Your task to perform on an android device: Go to location settings Image 0: 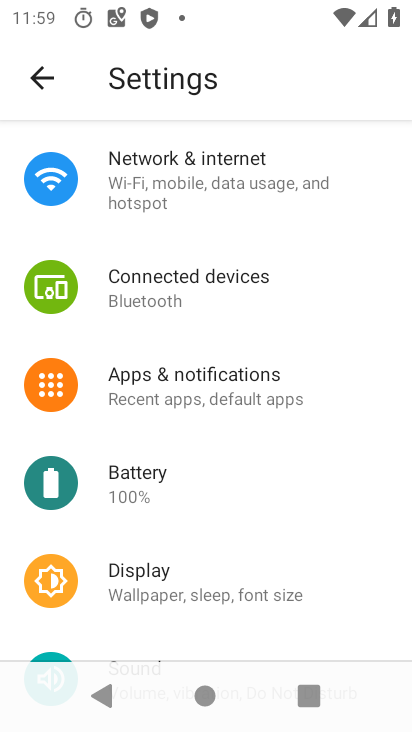
Step 0: press home button
Your task to perform on an android device: Go to location settings Image 1: 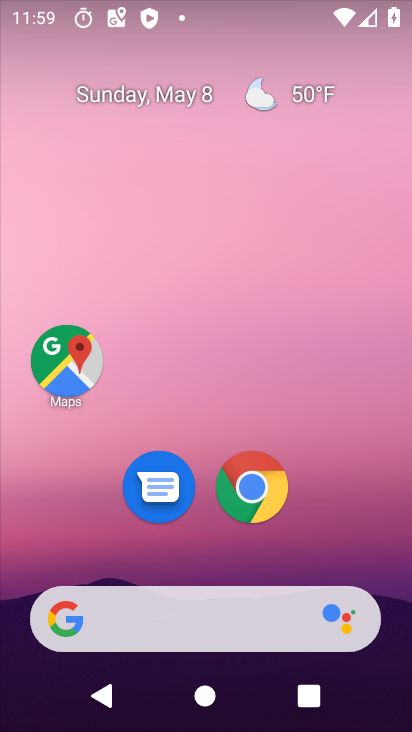
Step 1: drag from (200, 517) to (170, 158)
Your task to perform on an android device: Go to location settings Image 2: 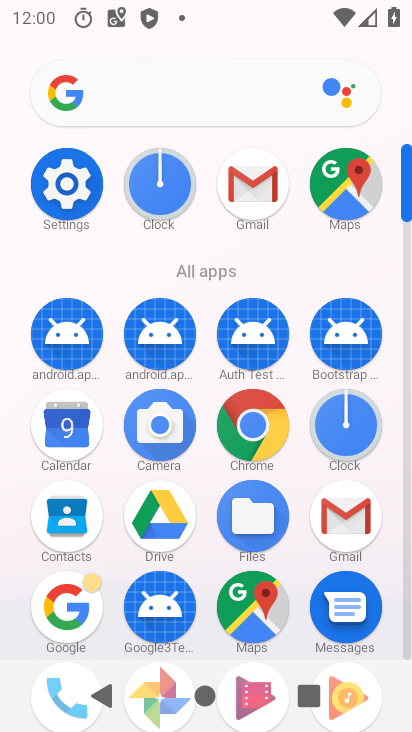
Step 2: click (75, 179)
Your task to perform on an android device: Go to location settings Image 3: 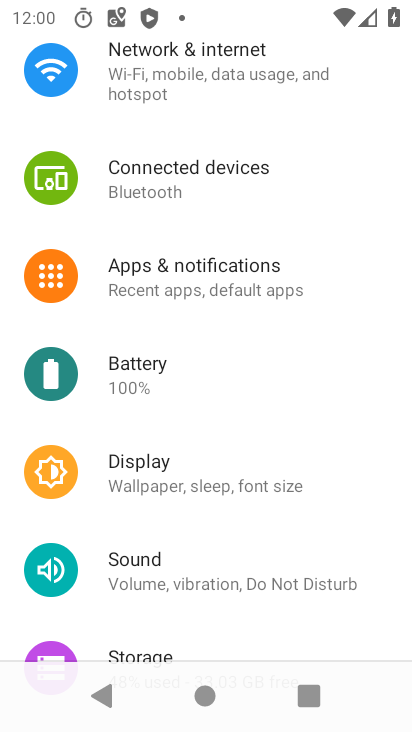
Step 3: drag from (171, 605) to (188, 169)
Your task to perform on an android device: Go to location settings Image 4: 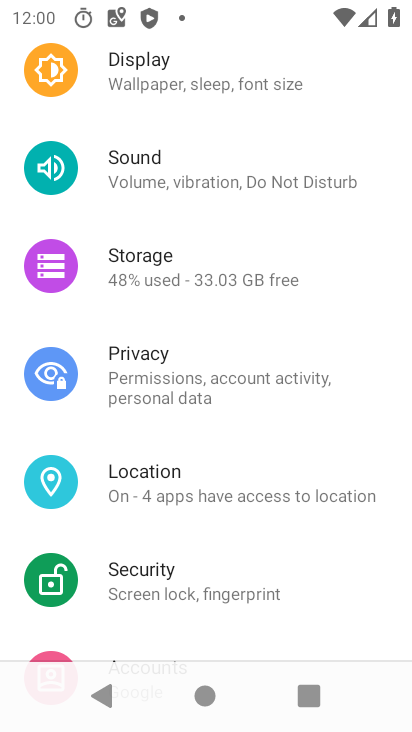
Step 4: click (183, 488)
Your task to perform on an android device: Go to location settings Image 5: 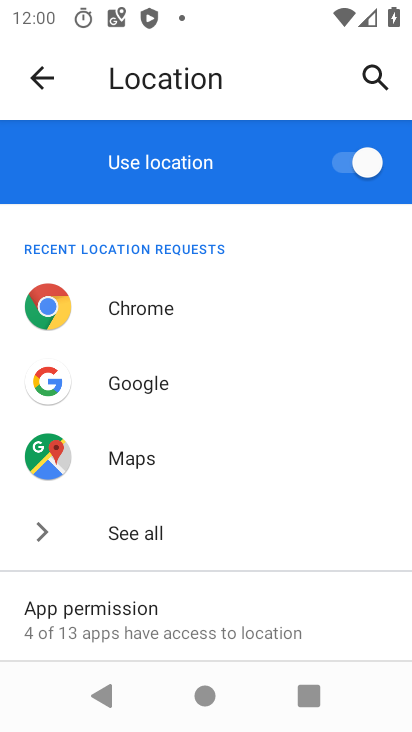
Step 5: task complete